Your task to perform on an android device: find which apps use the phone's location Image 0: 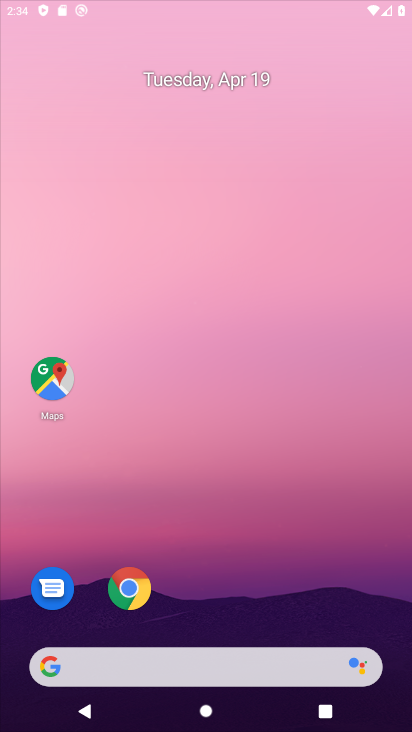
Step 0: click (358, 196)
Your task to perform on an android device: find which apps use the phone's location Image 1: 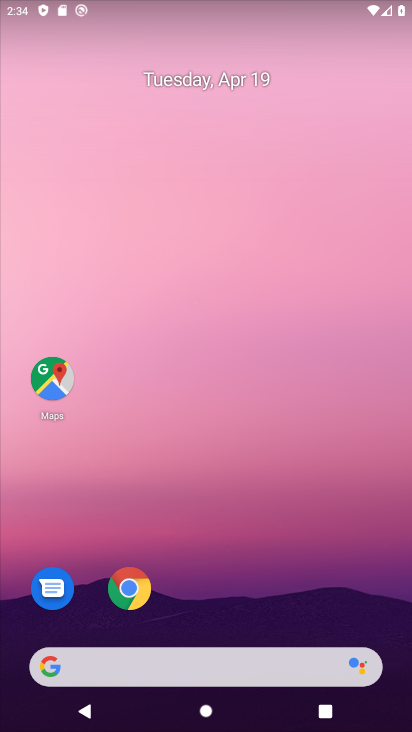
Step 1: drag from (278, 572) to (286, 138)
Your task to perform on an android device: find which apps use the phone's location Image 2: 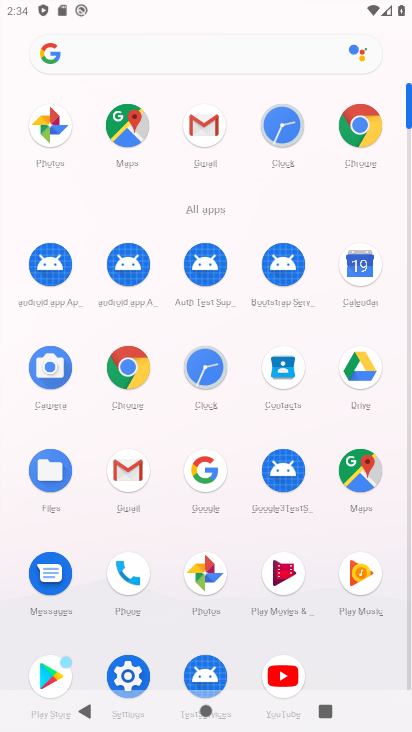
Step 2: click (119, 671)
Your task to perform on an android device: find which apps use the phone's location Image 3: 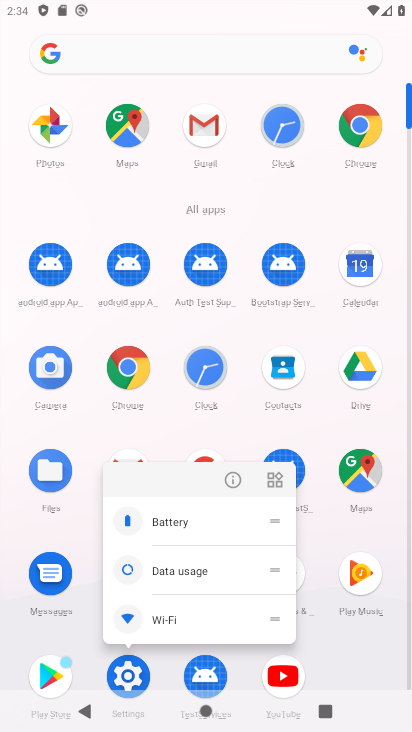
Step 3: click (239, 476)
Your task to perform on an android device: find which apps use the phone's location Image 4: 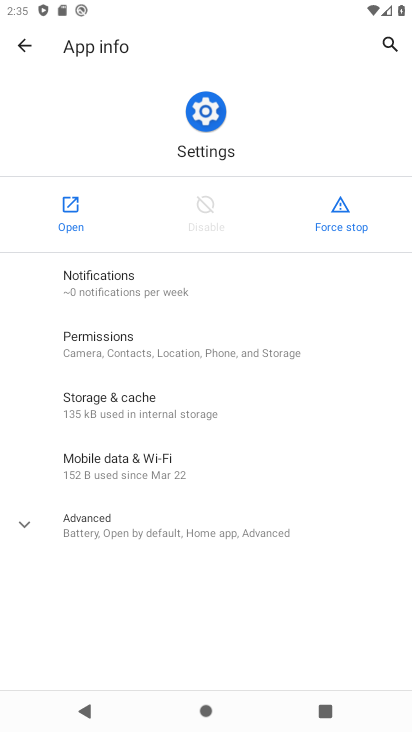
Step 4: click (57, 217)
Your task to perform on an android device: find which apps use the phone's location Image 5: 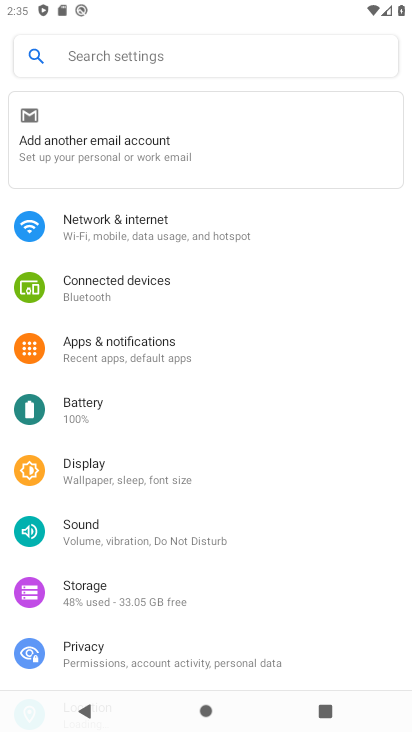
Step 5: drag from (154, 630) to (245, 315)
Your task to perform on an android device: find which apps use the phone's location Image 6: 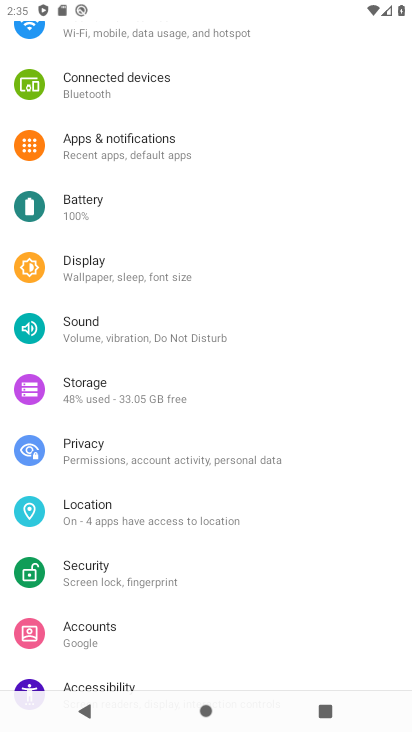
Step 6: click (101, 524)
Your task to perform on an android device: find which apps use the phone's location Image 7: 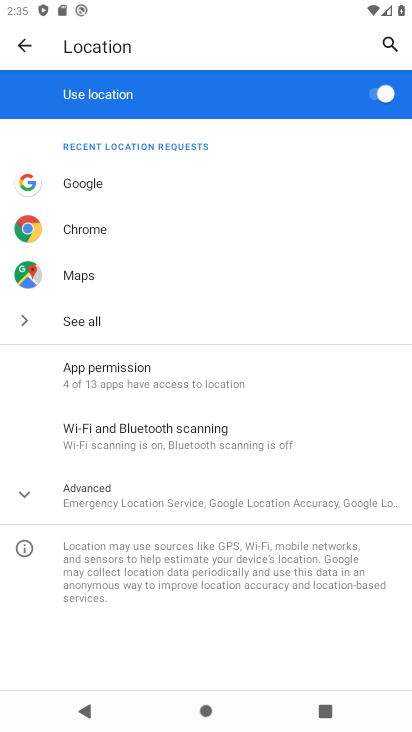
Step 7: click (136, 374)
Your task to perform on an android device: find which apps use the phone's location Image 8: 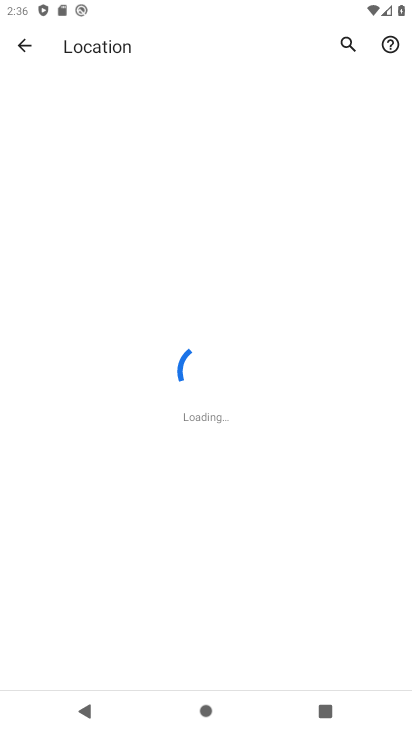
Step 8: task complete